Your task to perform on an android device: Open settings on Google Maps Image 0: 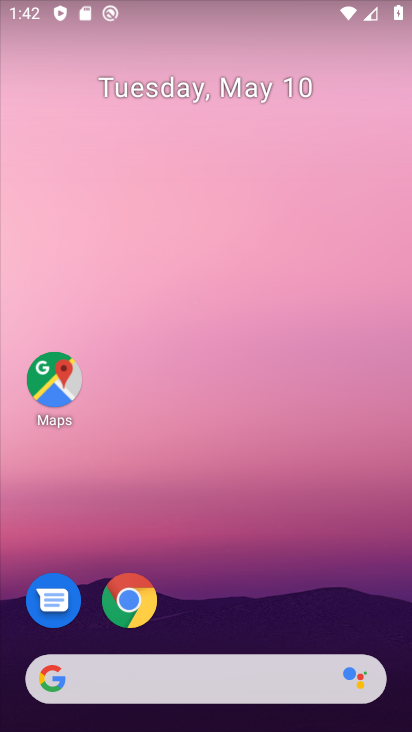
Step 0: drag from (183, 586) to (231, 113)
Your task to perform on an android device: Open settings on Google Maps Image 1: 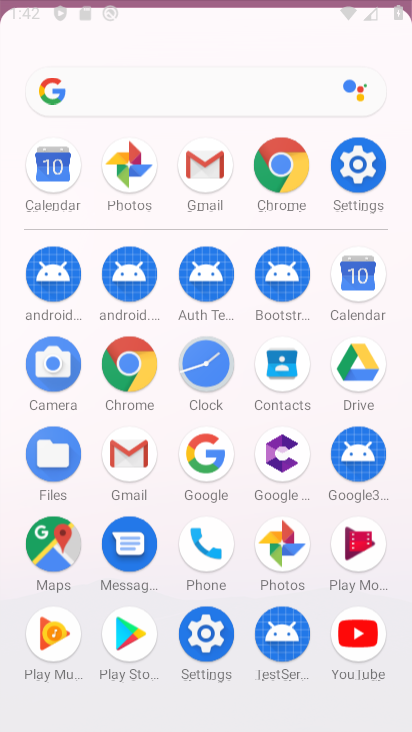
Step 1: click (219, 124)
Your task to perform on an android device: Open settings on Google Maps Image 2: 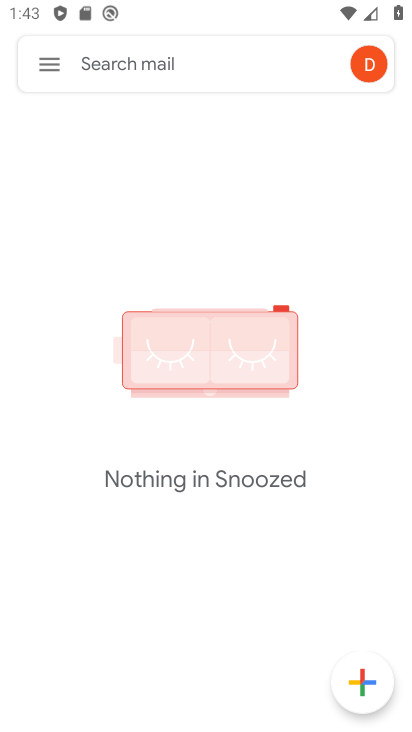
Step 2: press home button
Your task to perform on an android device: Open settings on Google Maps Image 3: 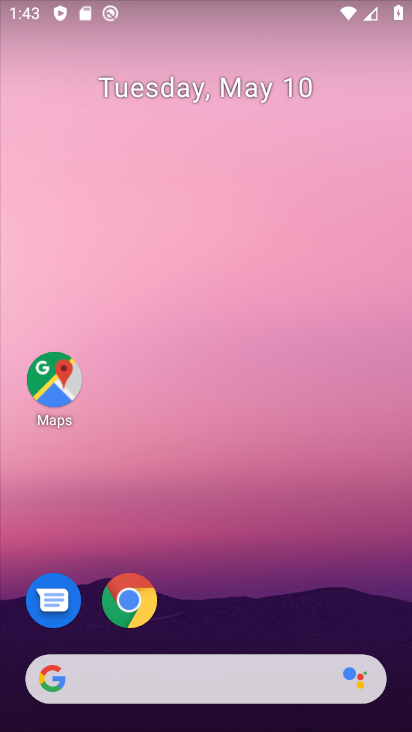
Step 3: drag from (278, 641) to (323, 174)
Your task to perform on an android device: Open settings on Google Maps Image 4: 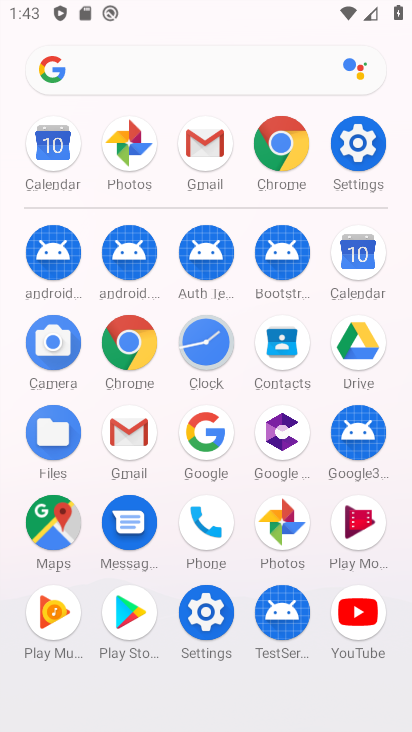
Step 4: click (54, 549)
Your task to perform on an android device: Open settings on Google Maps Image 5: 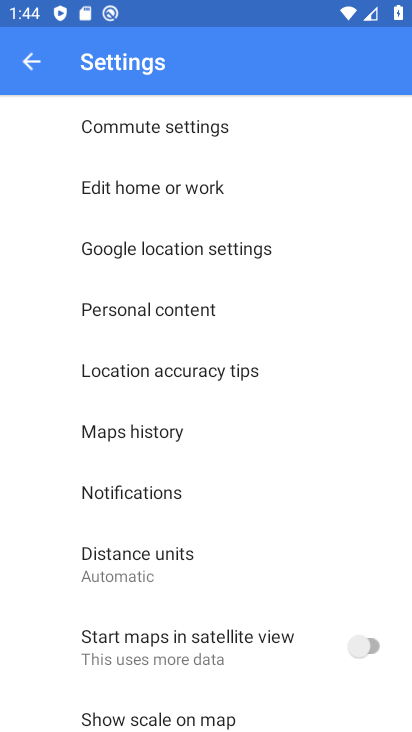
Step 5: click (41, 75)
Your task to perform on an android device: Open settings on Google Maps Image 6: 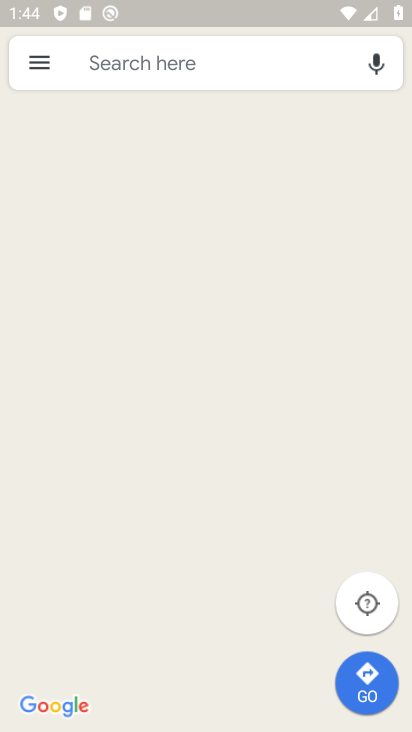
Step 6: click (37, 70)
Your task to perform on an android device: Open settings on Google Maps Image 7: 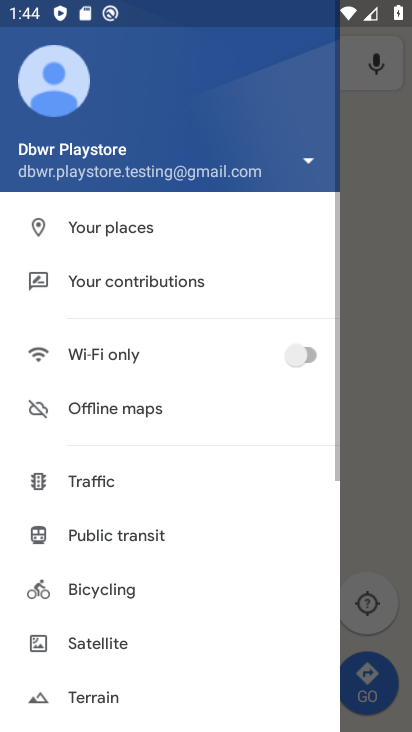
Step 7: drag from (122, 644) to (219, 277)
Your task to perform on an android device: Open settings on Google Maps Image 8: 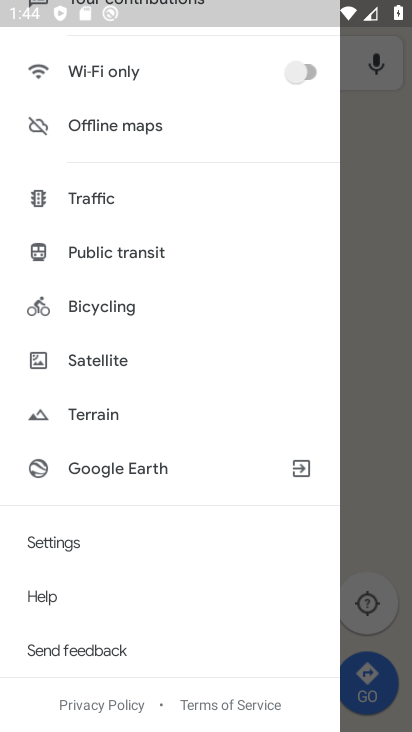
Step 8: click (79, 561)
Your task to perform on an android device: Open settings on Google Maps Image 9: 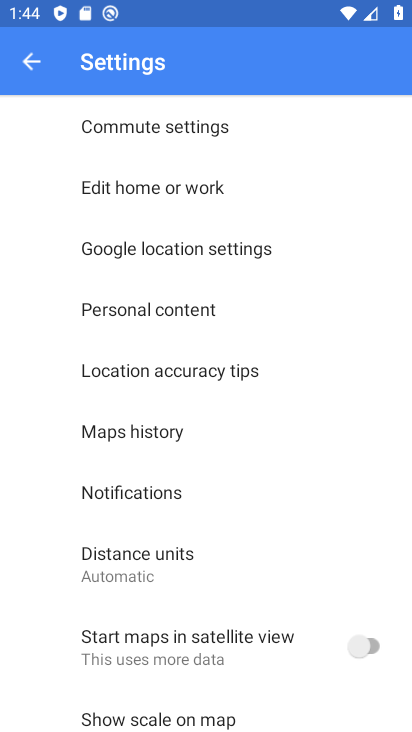
Step 9: task complete